Your task to perform on an android device: Open calendar and show me the first week of next month Image 0: 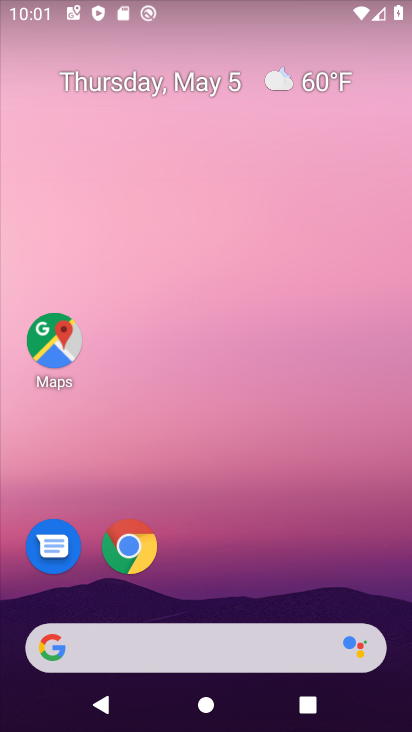
Step 0: drag from (247, 598) to (218, 163)
Your task to perform on an android device: Open calendar and show me the first week of next month Image 1: 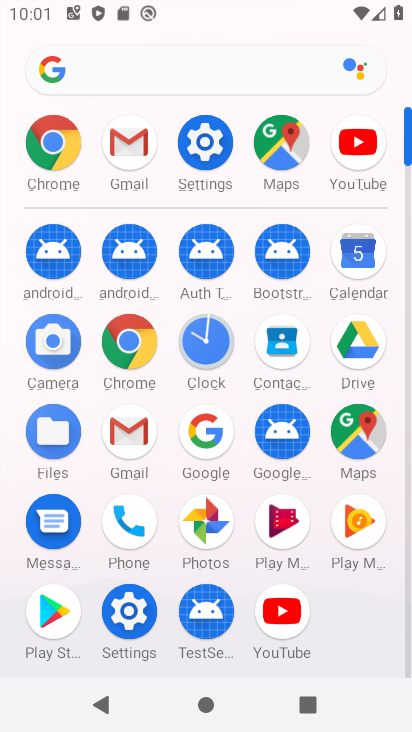
Step 1: click (351, 260)
Your task to perform on an android device: Open calendar and show me the first week of next month Image 2: 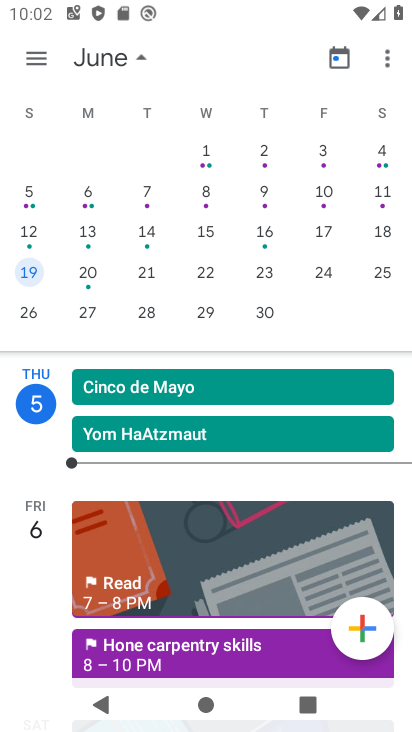
Step 2: click (199, 154)
Your task to perform on an android device: Open calendar and show me the first week of next month Image 3: 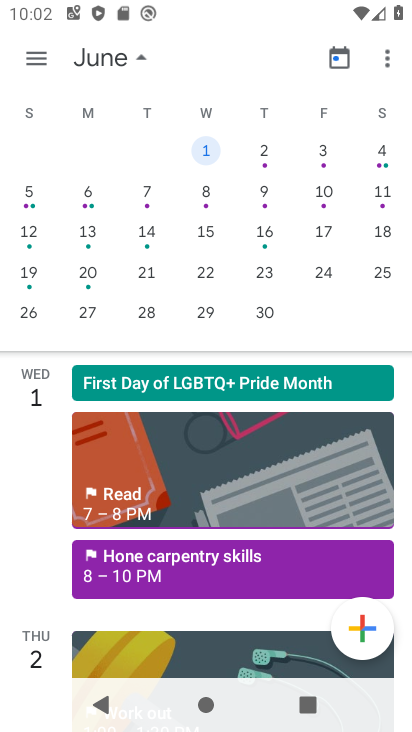
Step 3: task complete